Your task to perform on an android device: set the timer Image 0: 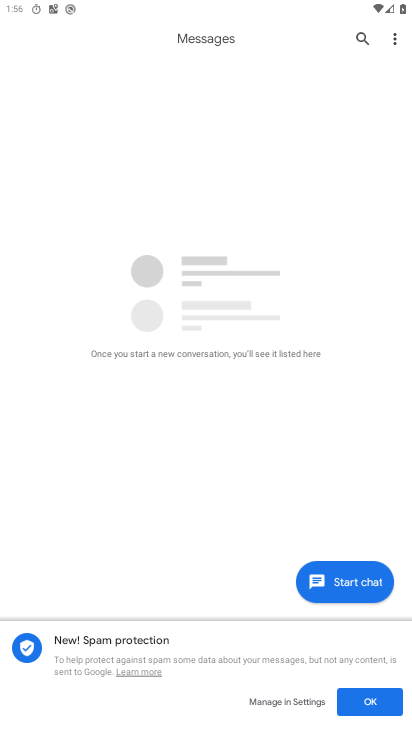
Step 0: press home button
Your task to perform on an android device: set the timer Image 1: 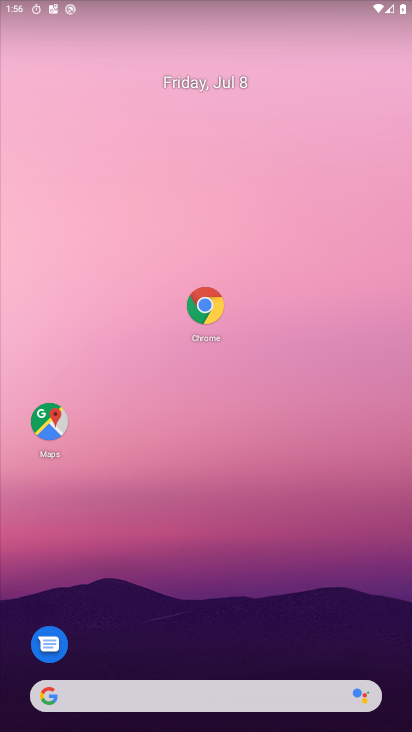
Step 1: drag from (186, 579) to (228, 289)
Your task to perform on an android device: set the timer Image 2: 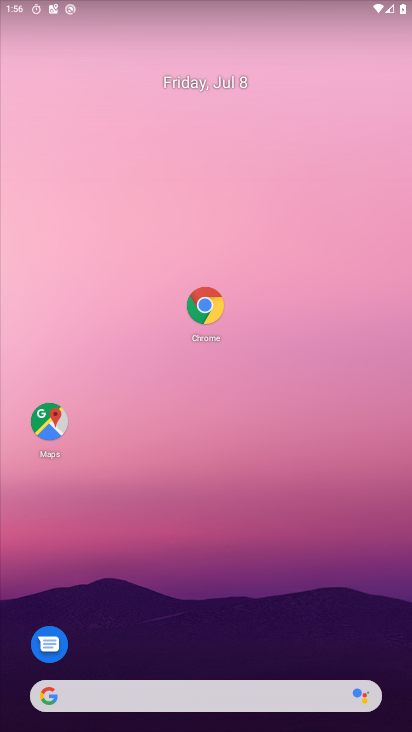
Step 2: drag from (225, 679) to (263, 293)
Your task to perform on an android device: set the timer Image 3: 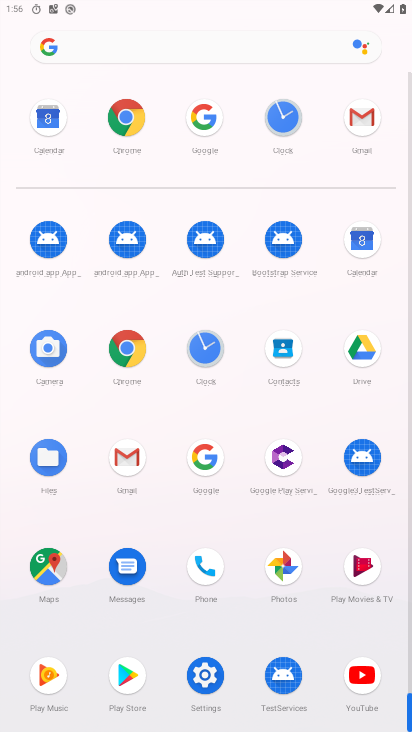
Step 3: click (212, 346)
Your task to perform on an android device: set the timer Image 4: 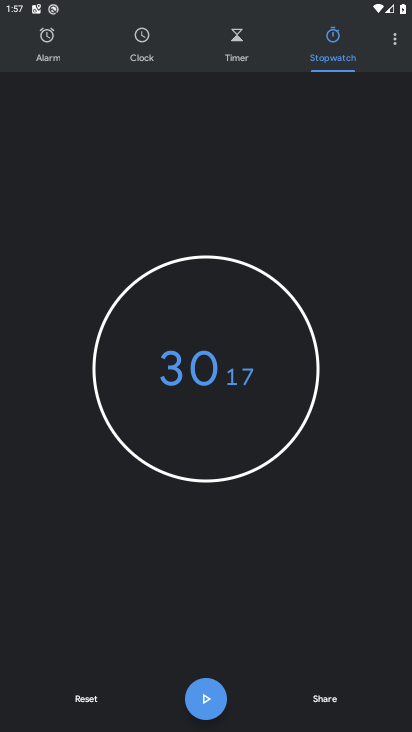
Step 4: click (244, 44)
Your task to perform on an android device: set the timer Image 5: 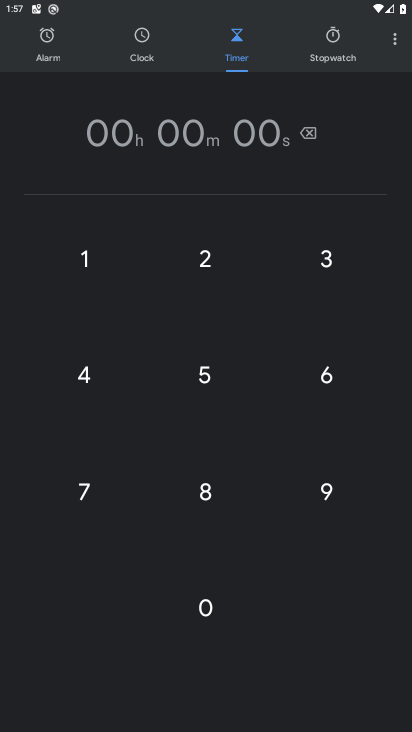
Step 5: click (201, 612)
Your task to perform on an android device: set the timer Image 6: 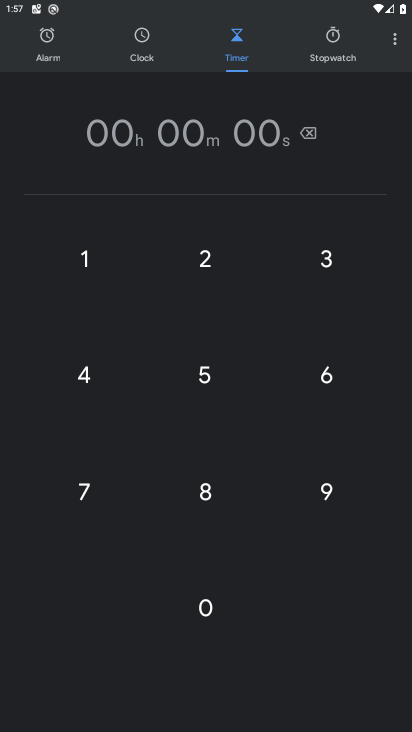
Step 6: click (98, 252)
Your task to perform on an android device: set the timer Image 7: 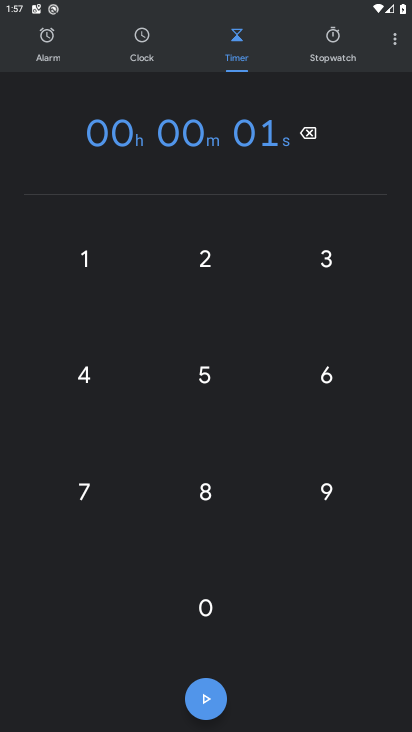
Step 7: click (216, 605)
Your task to perform on an android device: set the timer Image 8: 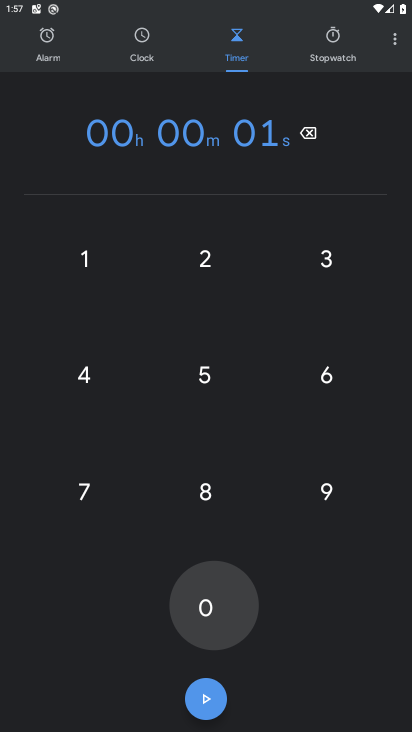
Step 8: click (215, 605)
Your task to perform on an android device: set the timer Image 9: 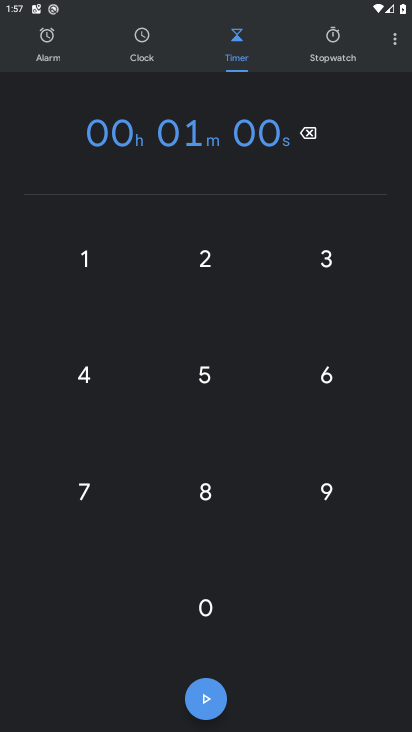
Step 9: click (215, 605)
Your task to perform on an android device: set the timer Image 10: 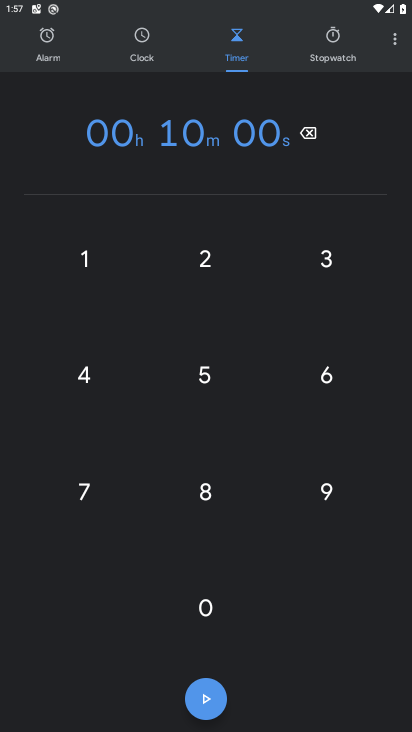
Step 10: click (215, 605)
Your task to perform on an android device: set the timer Image 11: 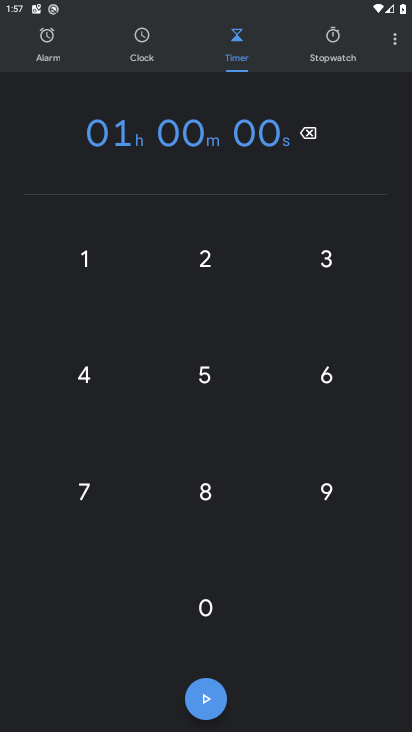
Step 11: click (215, 605)
Your task to perform on an android device: set the timer Image 12: 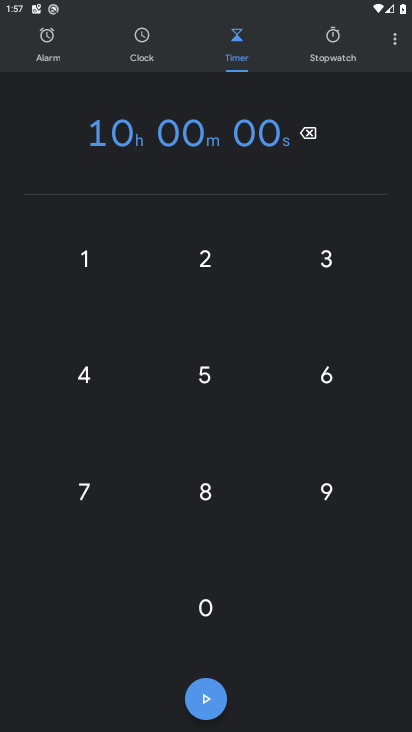
Step 12: click (215, 605)
Your task to perform on an android device: set the timer Image 13: 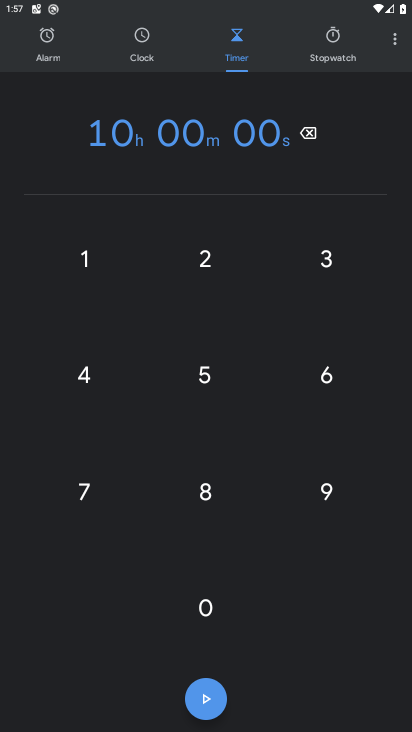
Step 13: task complete